Your task to perform on an android device: change your default location settings in chrome Image 0: 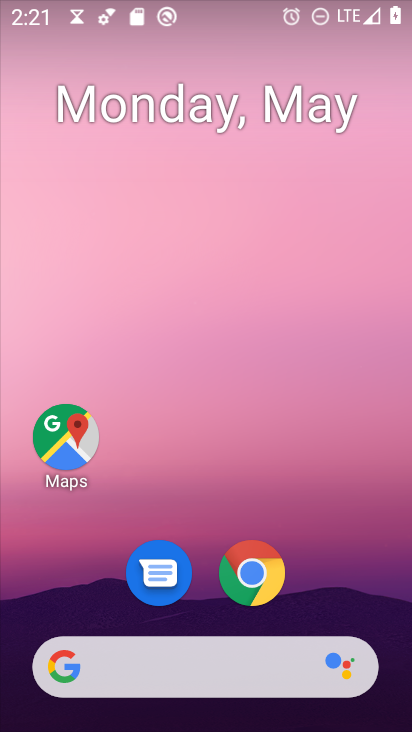
Step 0: drag from (165, 599) to (170, 1)
Your task to perform on an android device: change your default location settings in chrome Image 1: 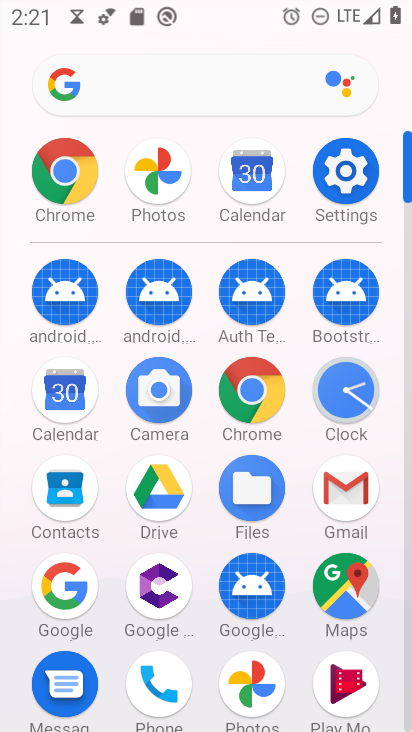
Step 1: click (237, 389)
Your task to perform on an android device: change your default location settings in chrome Image 2: 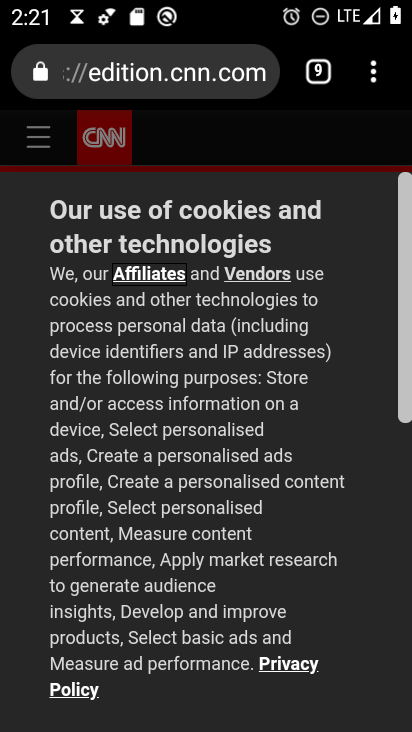
Step 2: drag from (381, 72) to (164, 587)
Your task to perform on an android device: change your default location settings in chrome Image 3: 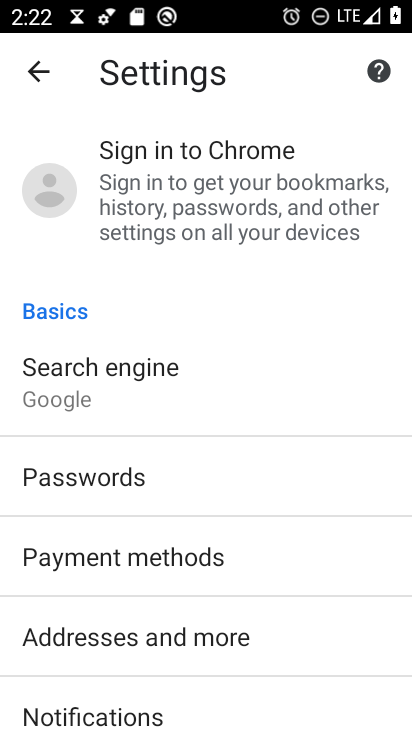
Step 3: drag from (211, 702) to (240, 246)
Your task to perform on an android device: change your default location settings in chrome Image 4: 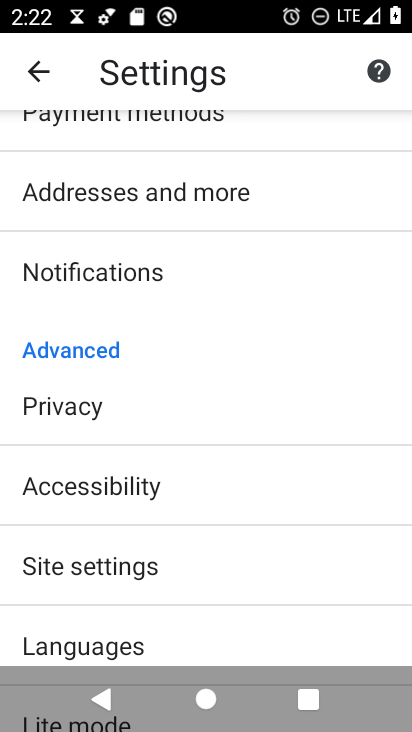
Step 4: click (180, 569)
Your task to perform on an android device: change your default location settings in chrome Image 5: 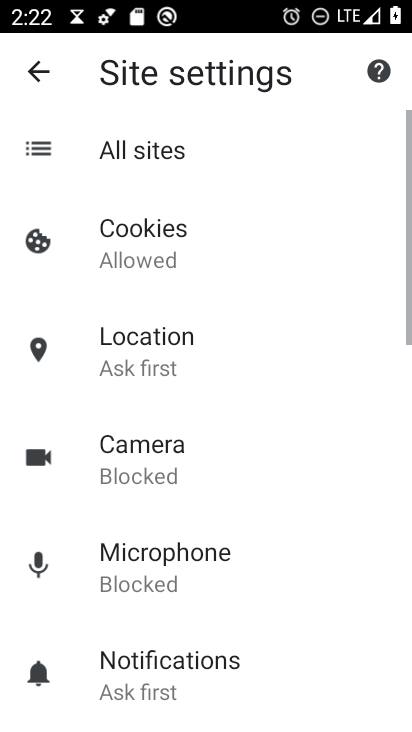
Step 5: drag from (263, 614) to (272, 430)
Your task to perform on an android device: change your default location settings in chrome Image 6: 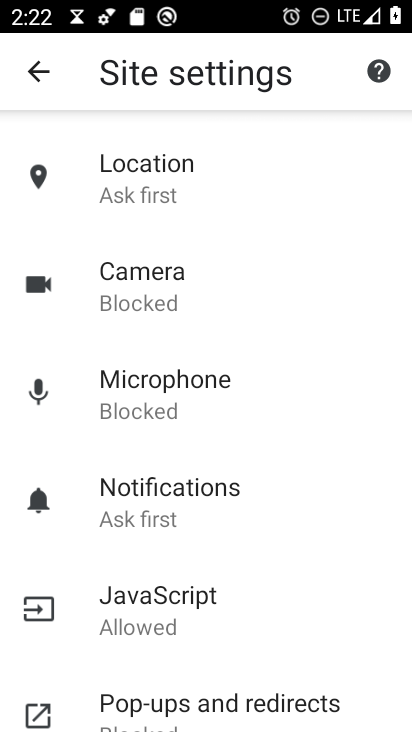
Step 6: click (164, 201)
Your task to perform on an android device: change your default location settings in chrome Image 7: 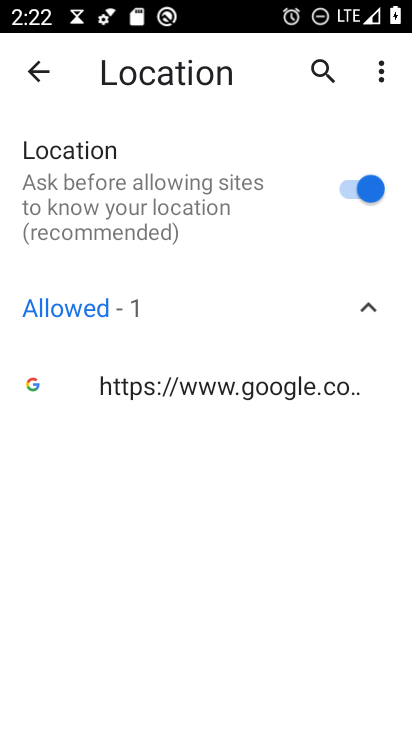
Step 7: task complete